Your task to perform on an android device: toggle wifi Image 0: 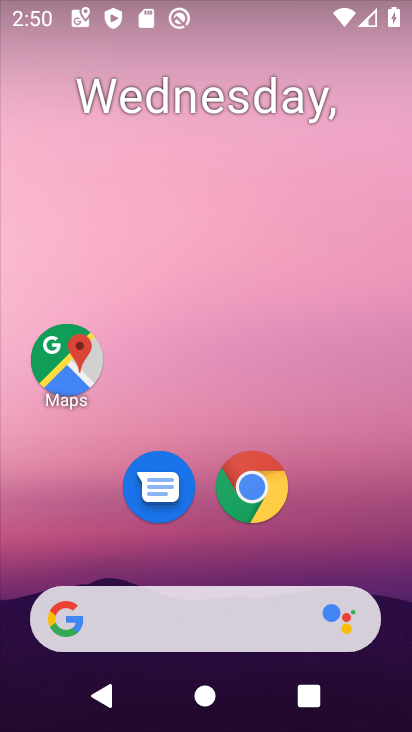
Step 0: drag from (317, 525) to (299, 20)
Your task to perform on an android device: toggle wifi Image 1: 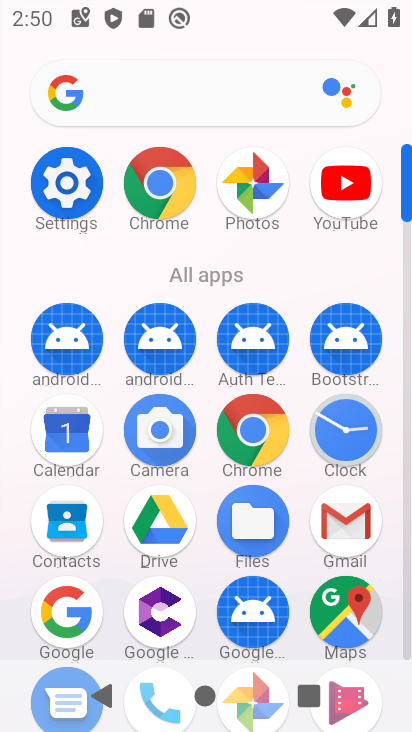
Step 1: click (89, 179)
Your task to perform on an android device: toggle wifi Image 2: 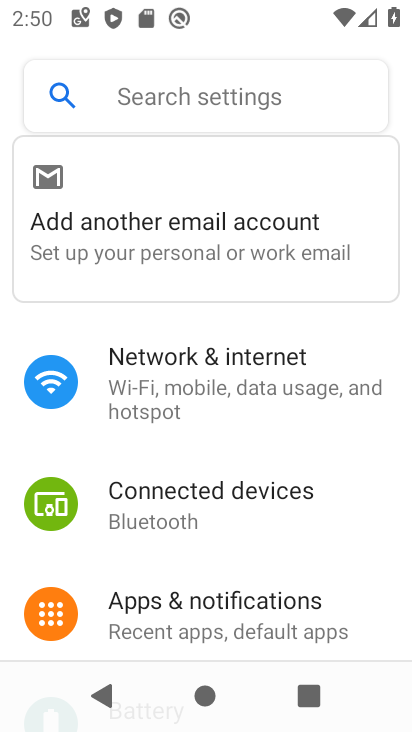
Step 2: click (259, 376)
Your task to perform on an android device: toggle wifi Image 3: 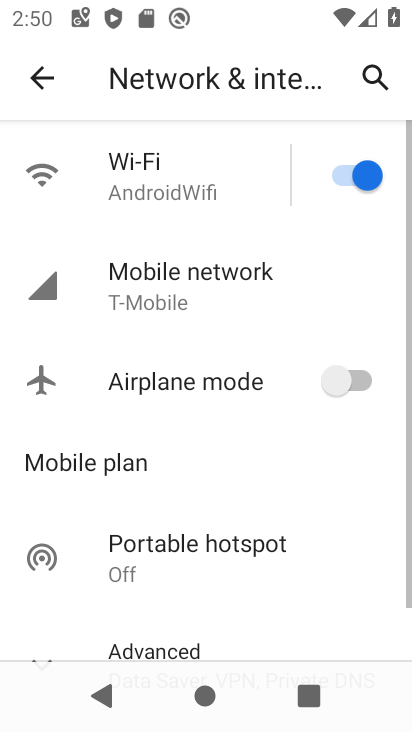
Step 3: click (329, 171)
Your task to perform on an android device: toggle wifi Image 4: 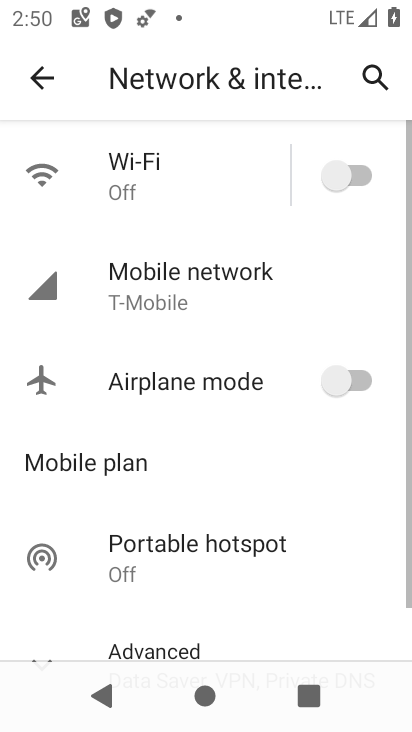
Step 4: task complete